Your task to perform on an android device: turn on wifi Image 0: 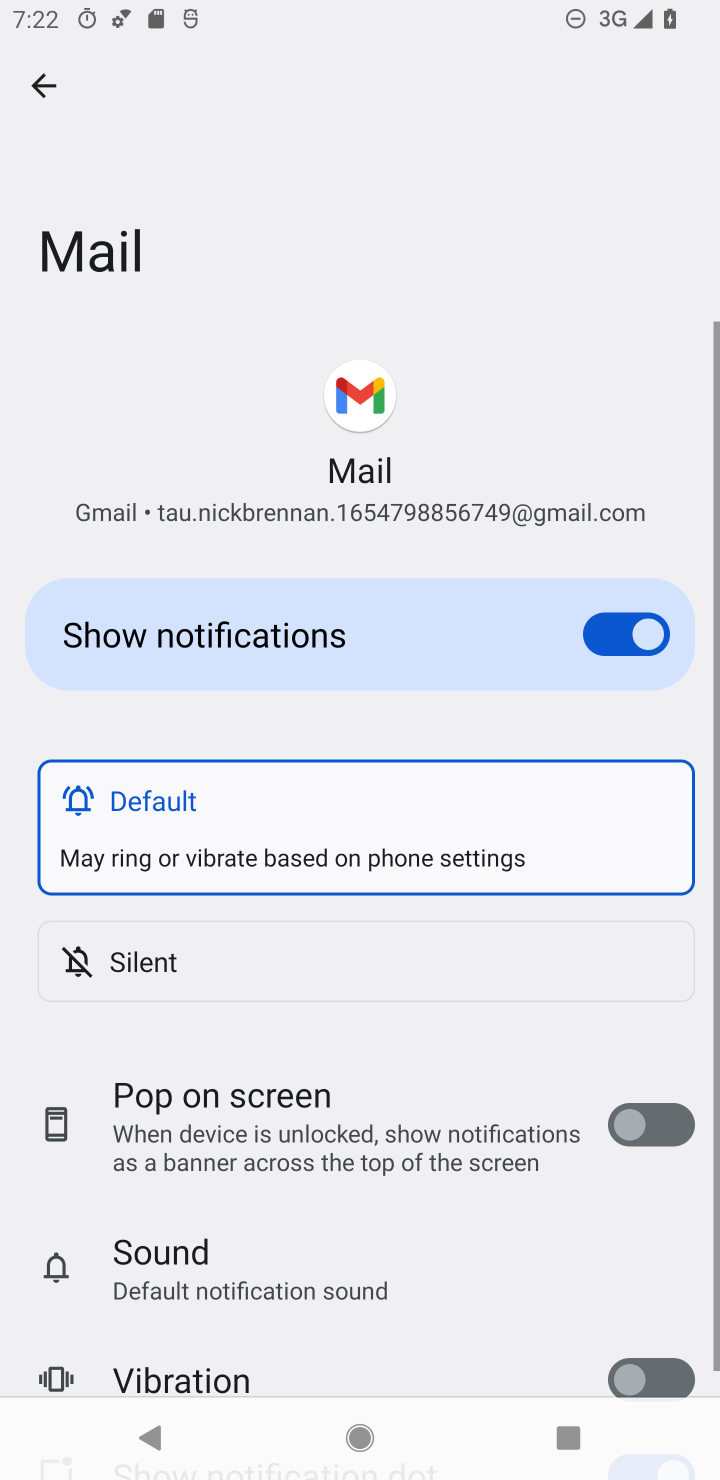
Step 0: click (568, 350)
Your task to perform on an android device: turn on wifi Image 1: 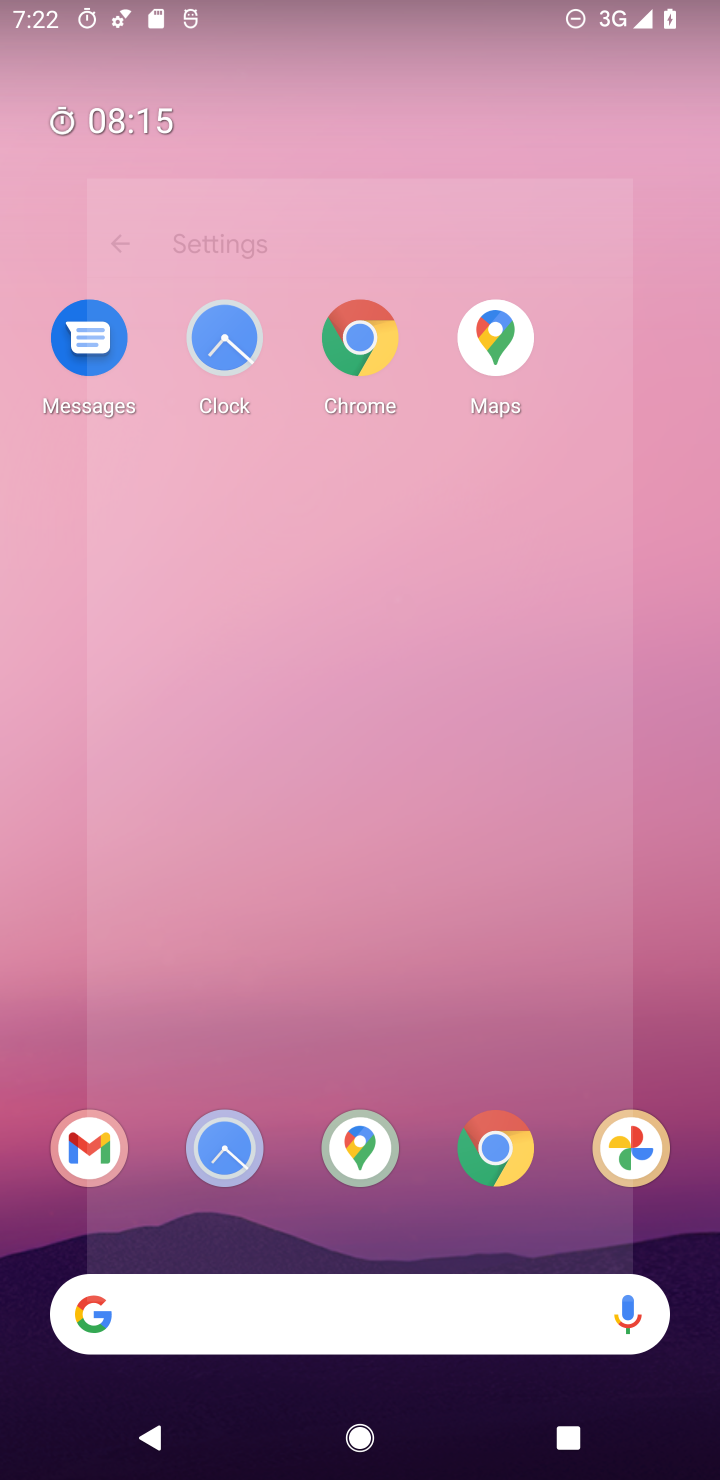
Step 1: press home button
Your task to perform on an android device: turn on wifi Image 2: 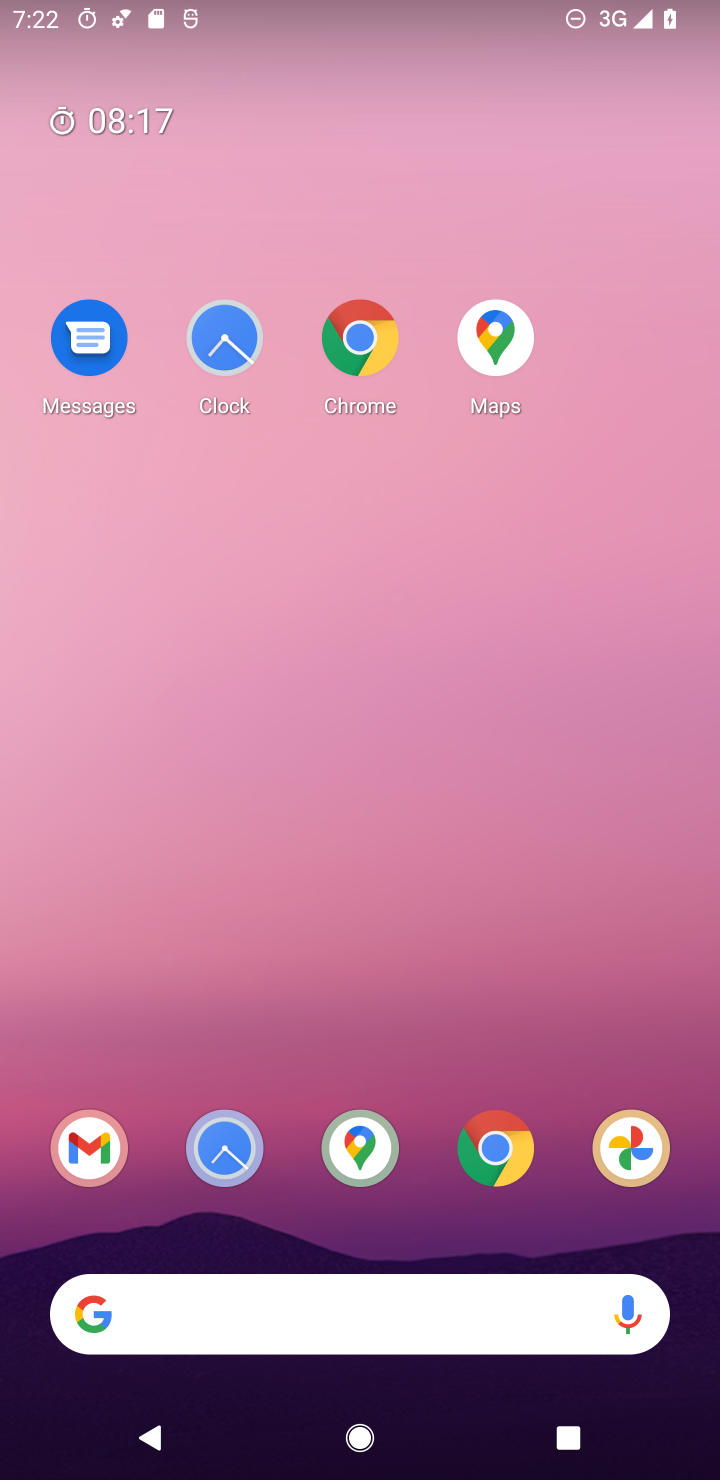
Step 2: press home button
Your task to perform on an android device: turn on wifi Image 3: 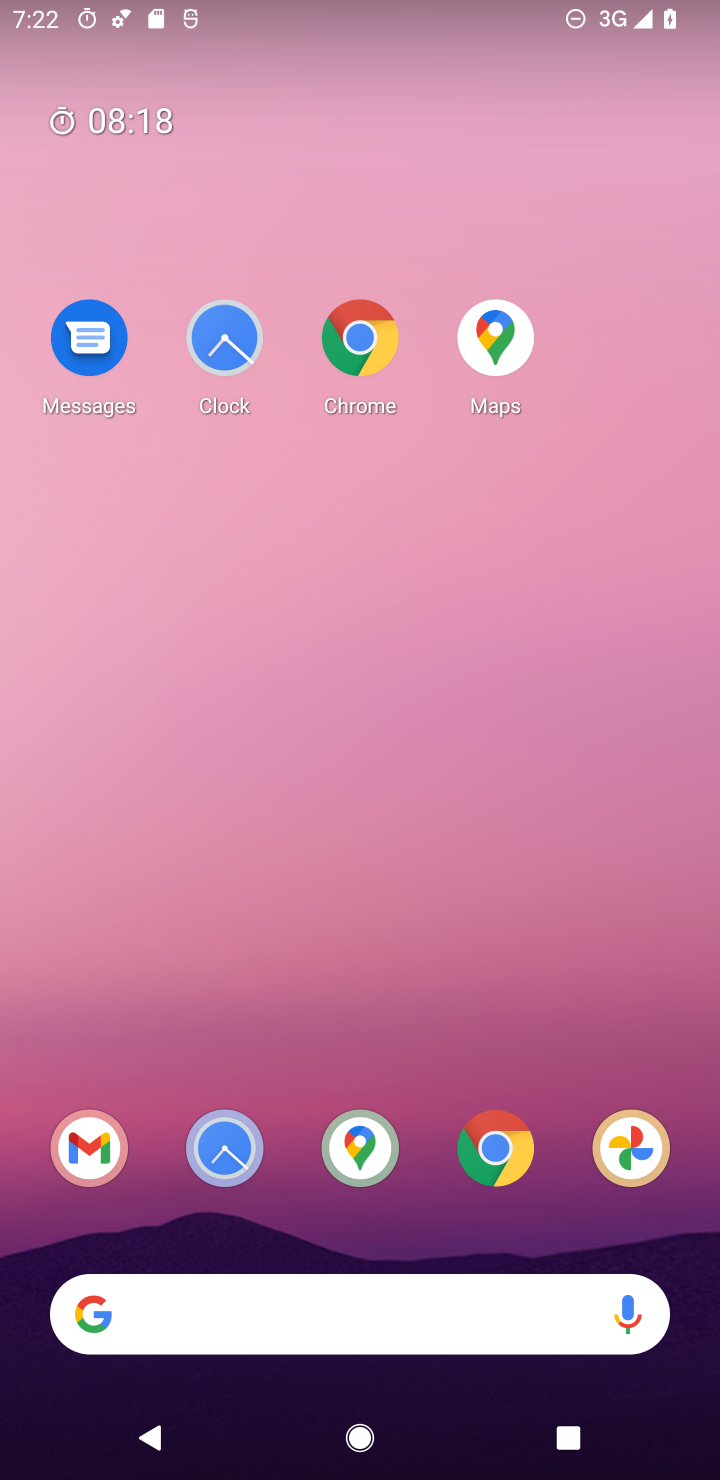
Step 3: drag from (445, 909) to (457, 308)
Your task to perform on an android device: turn on wifi Image 4: 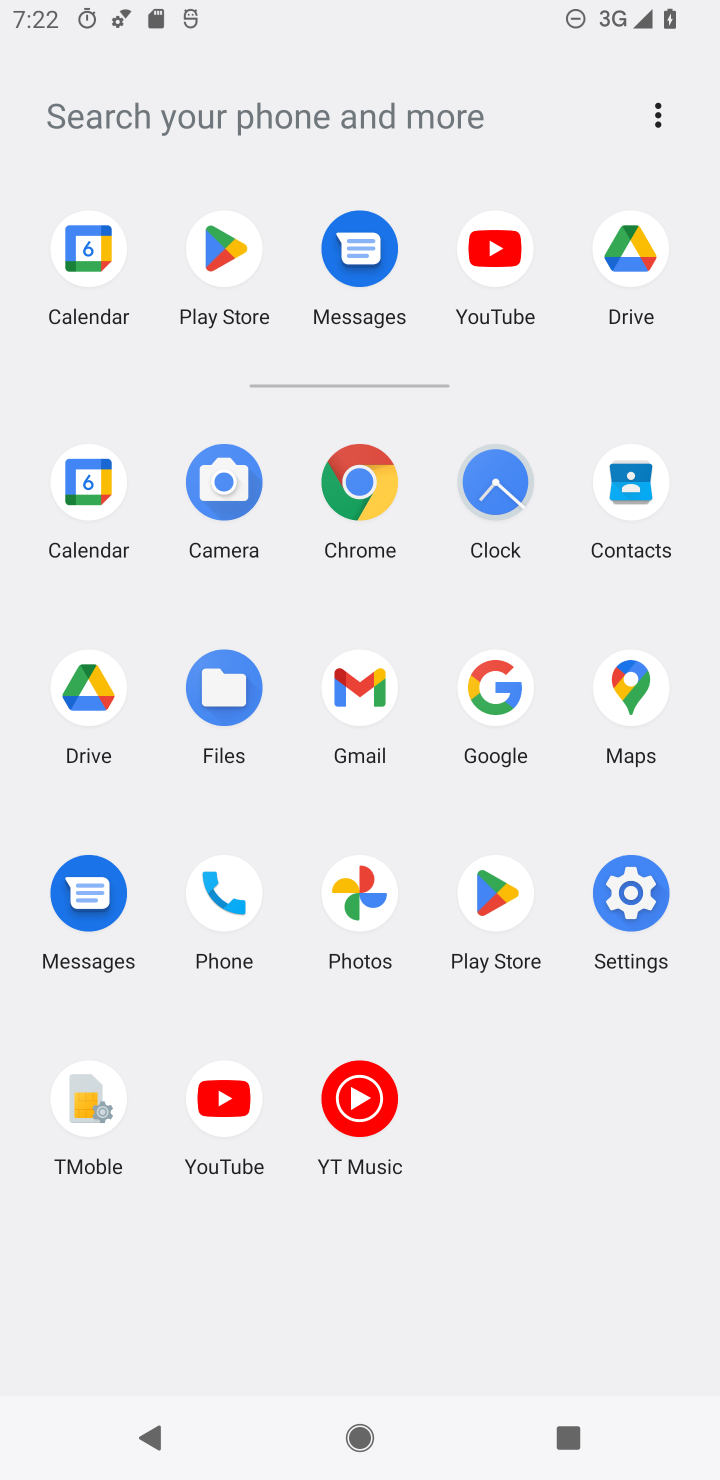
Step 4: click (606, 884)
Your task to perform on an android device: turn on wifi Image 5: 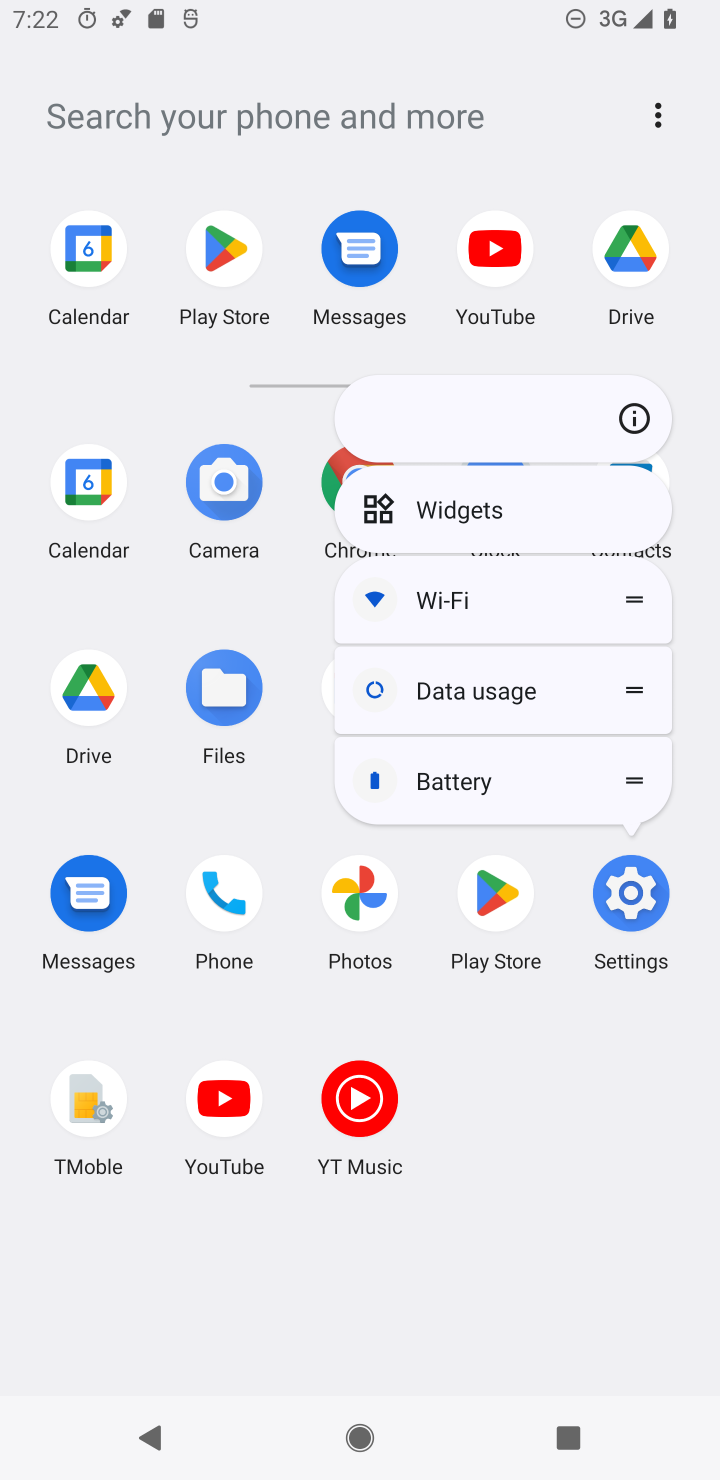
Step 5: click (614, 397)
Your task to perform on an android device: turn on wifi Image 6: 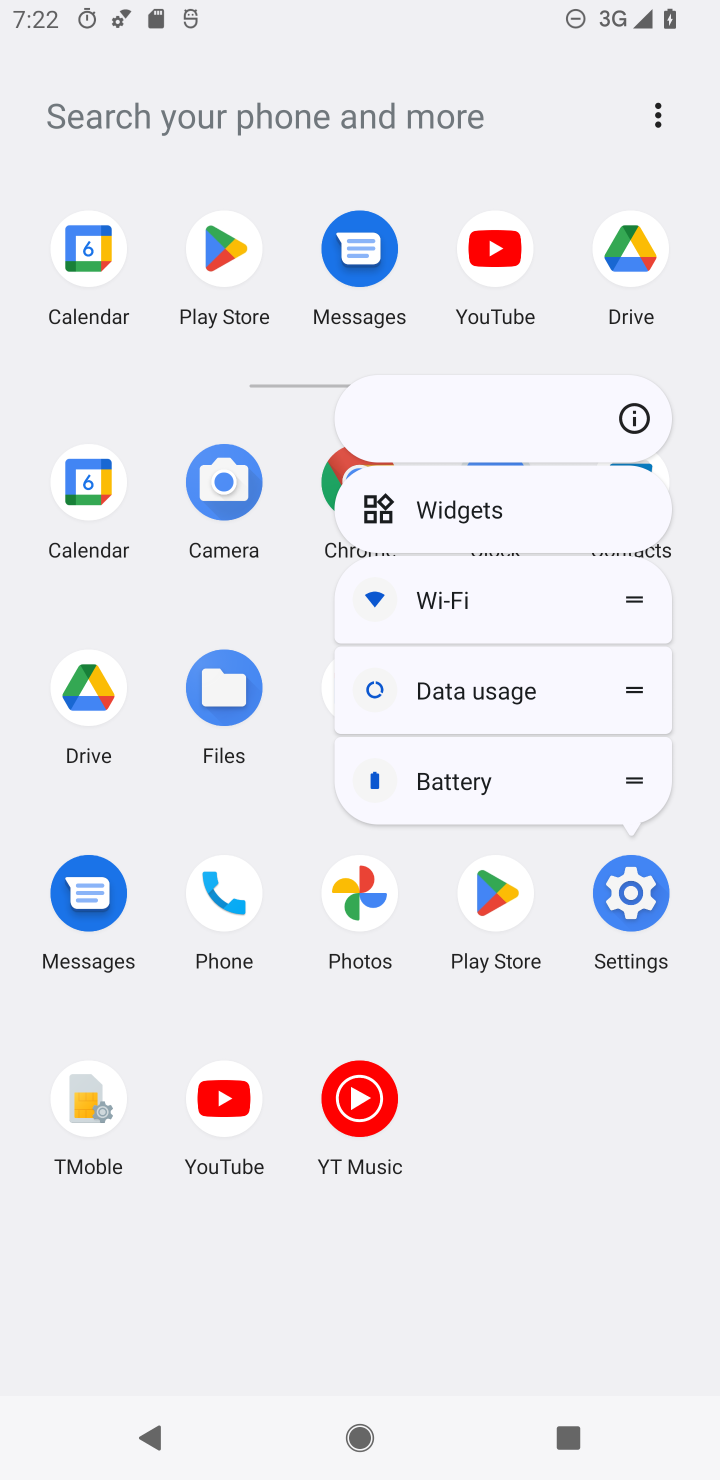
Step 6: click (630, 405)
Your task to perform on an android device: turn on wifi Image 7: 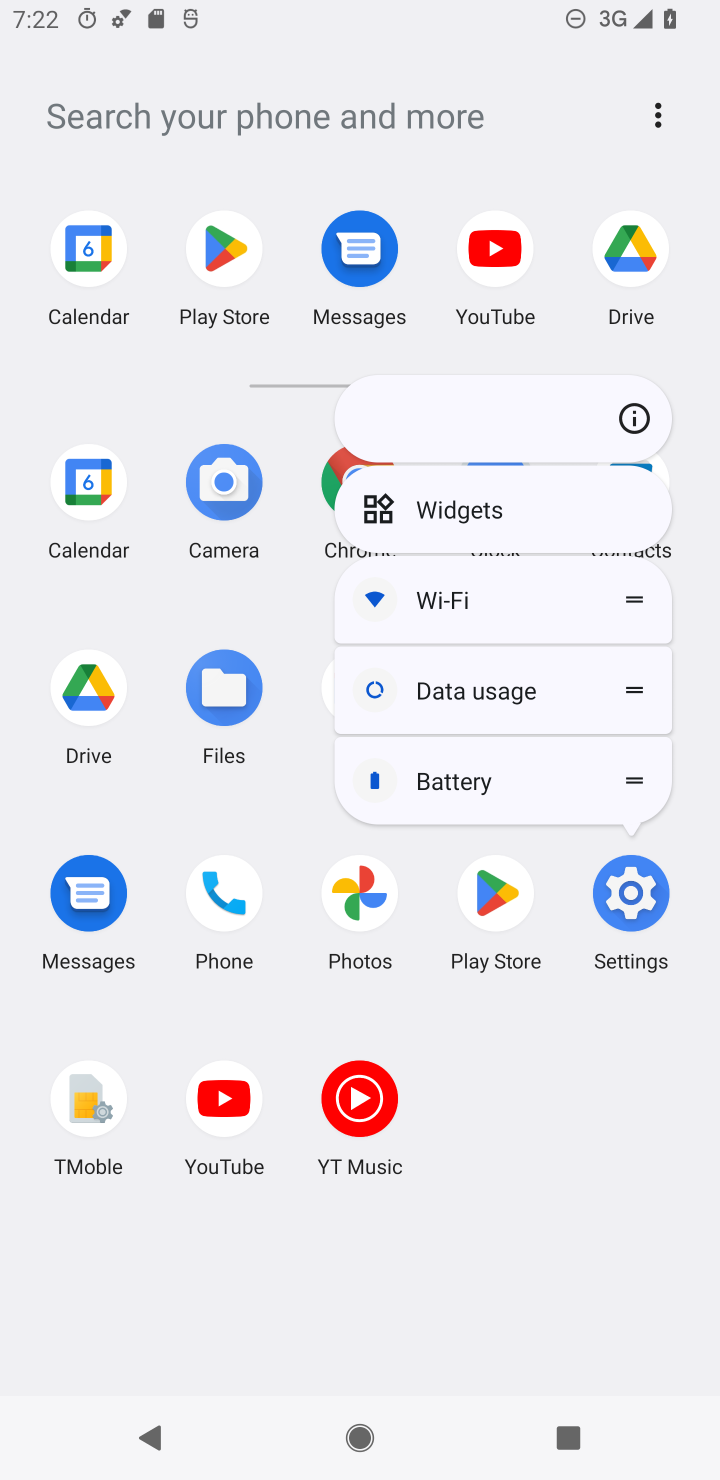
Step 7: click (633, 416)
Your task to perform on an android device: turn on wifi Image 8: 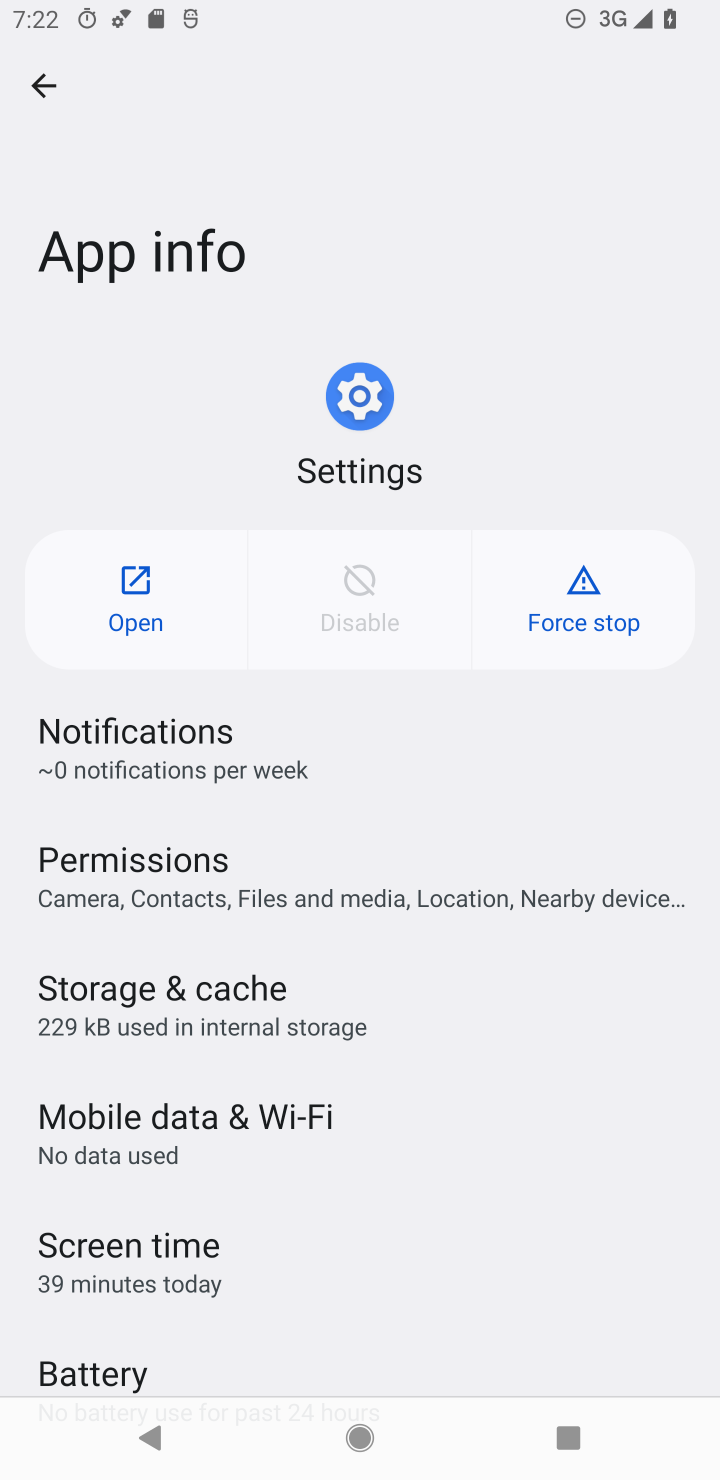
Step 8: click (142, 578)
Your task to perform on an android device: turn on wifi Image 9: 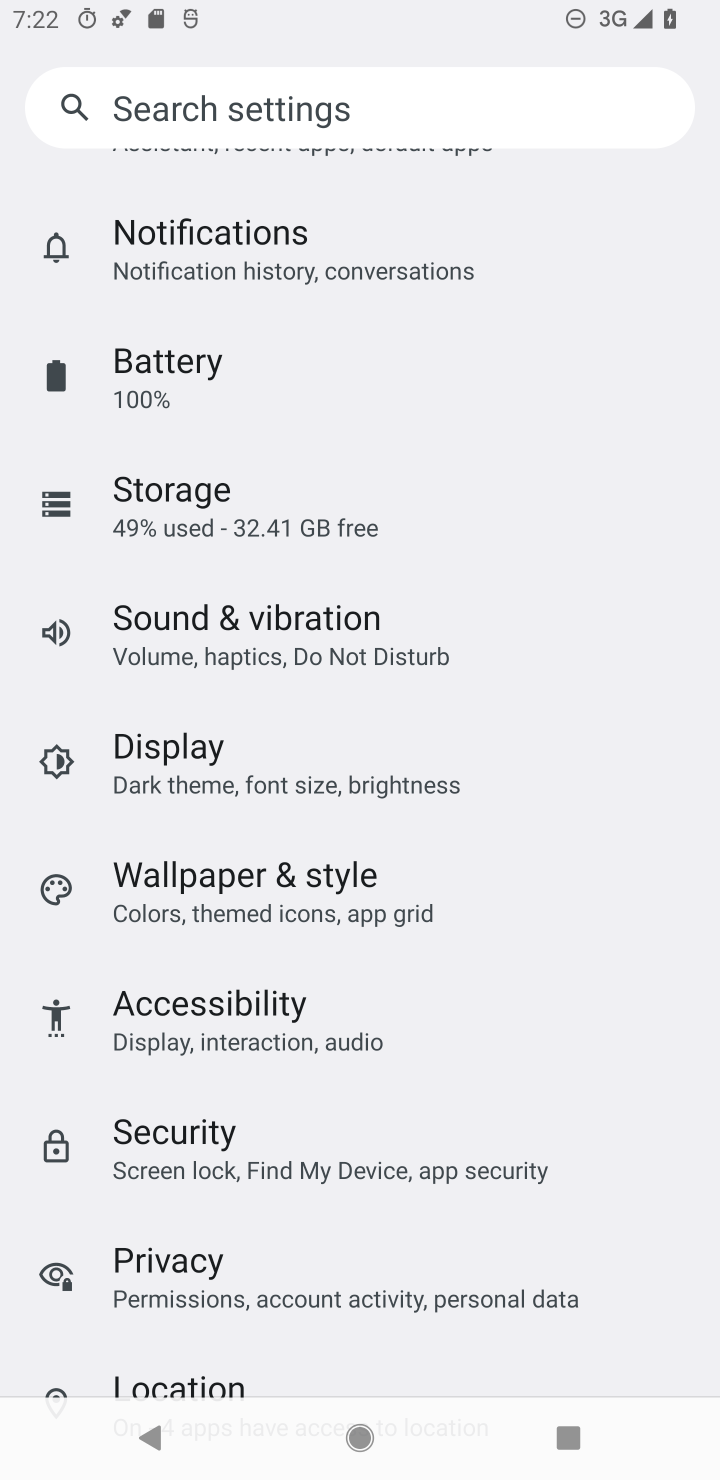
Step 9: drag from (270, 882) to (233, 1462)
Your task to perform on an android device: turn on wifi Image 10: 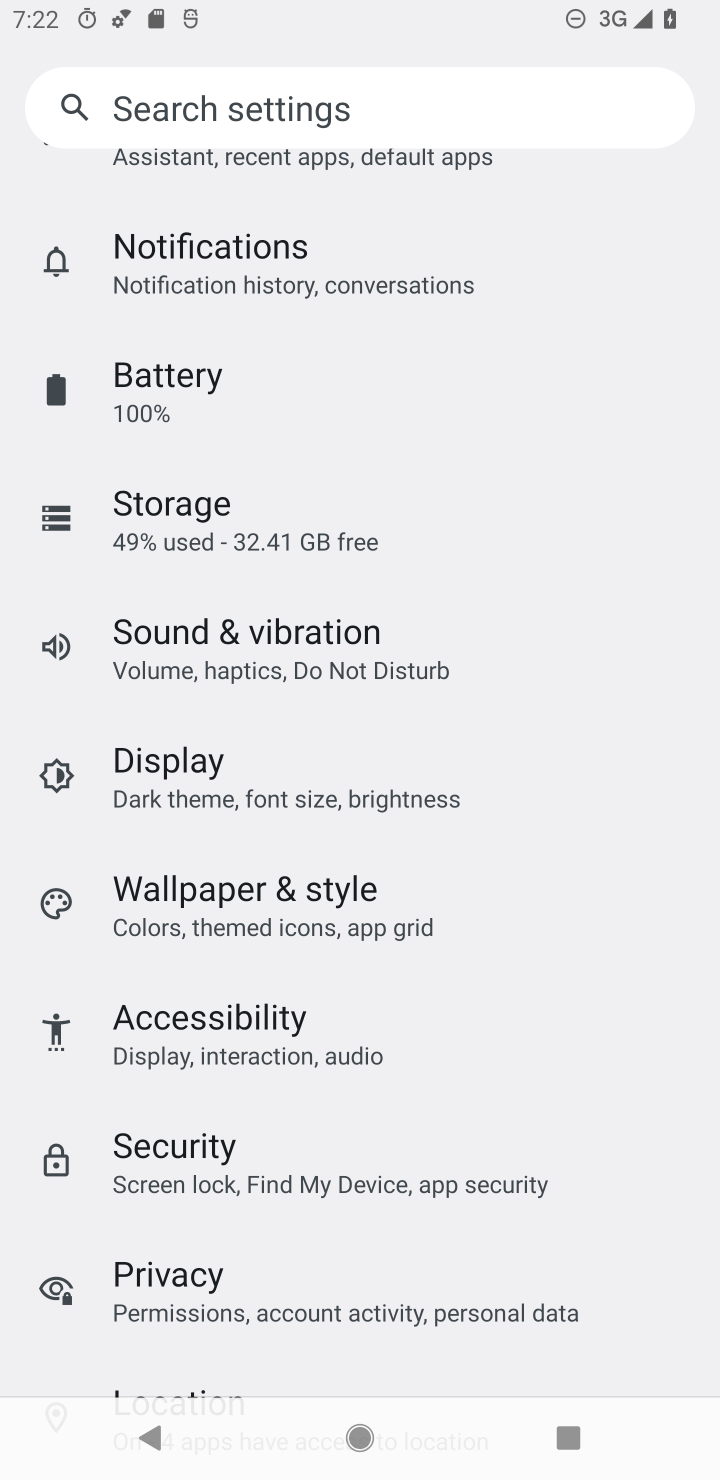
Step 10: drag from (293, 351) to (556, 1252)
Your task to perform on an android device: turn on wifi Image 11: 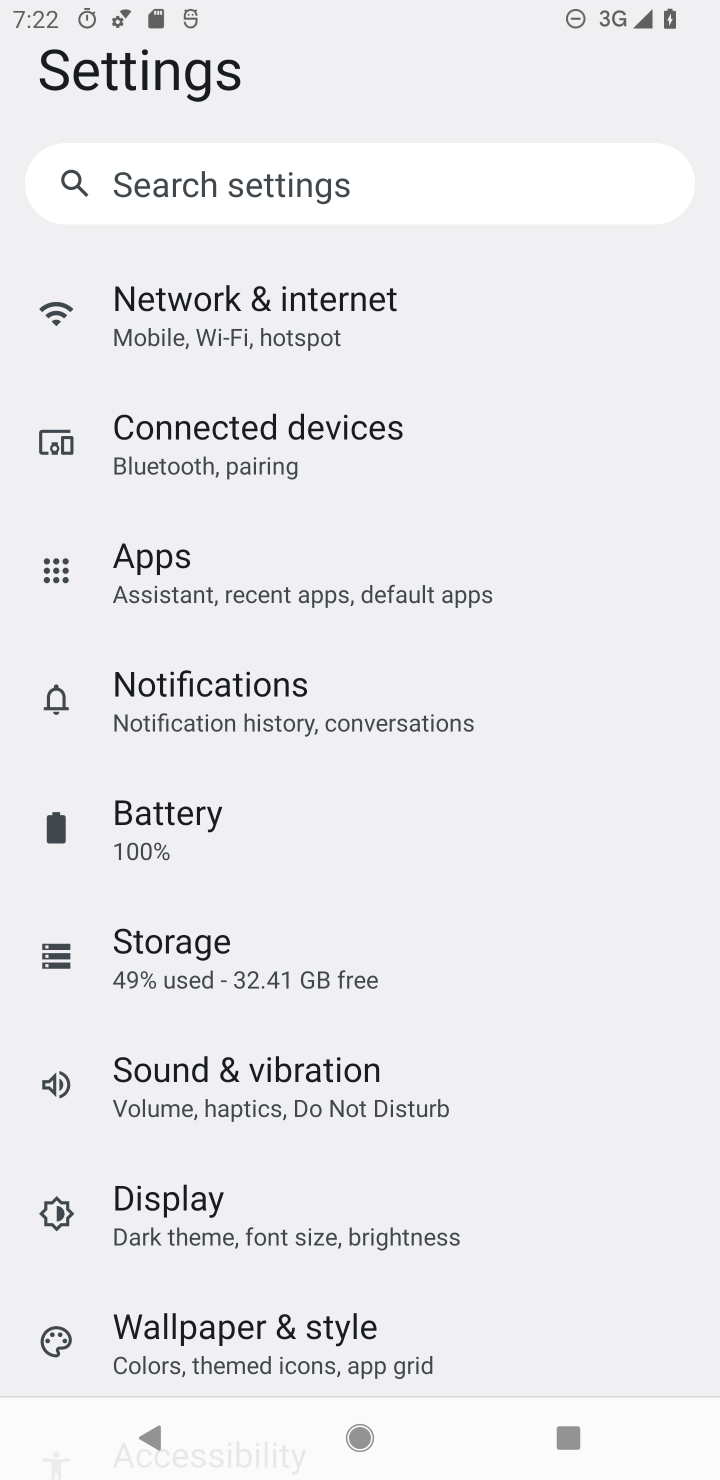
Step 11: drag from (243, 370) to (352, 1427)
Your task to perform on an android device: turn on wifi Image 12: 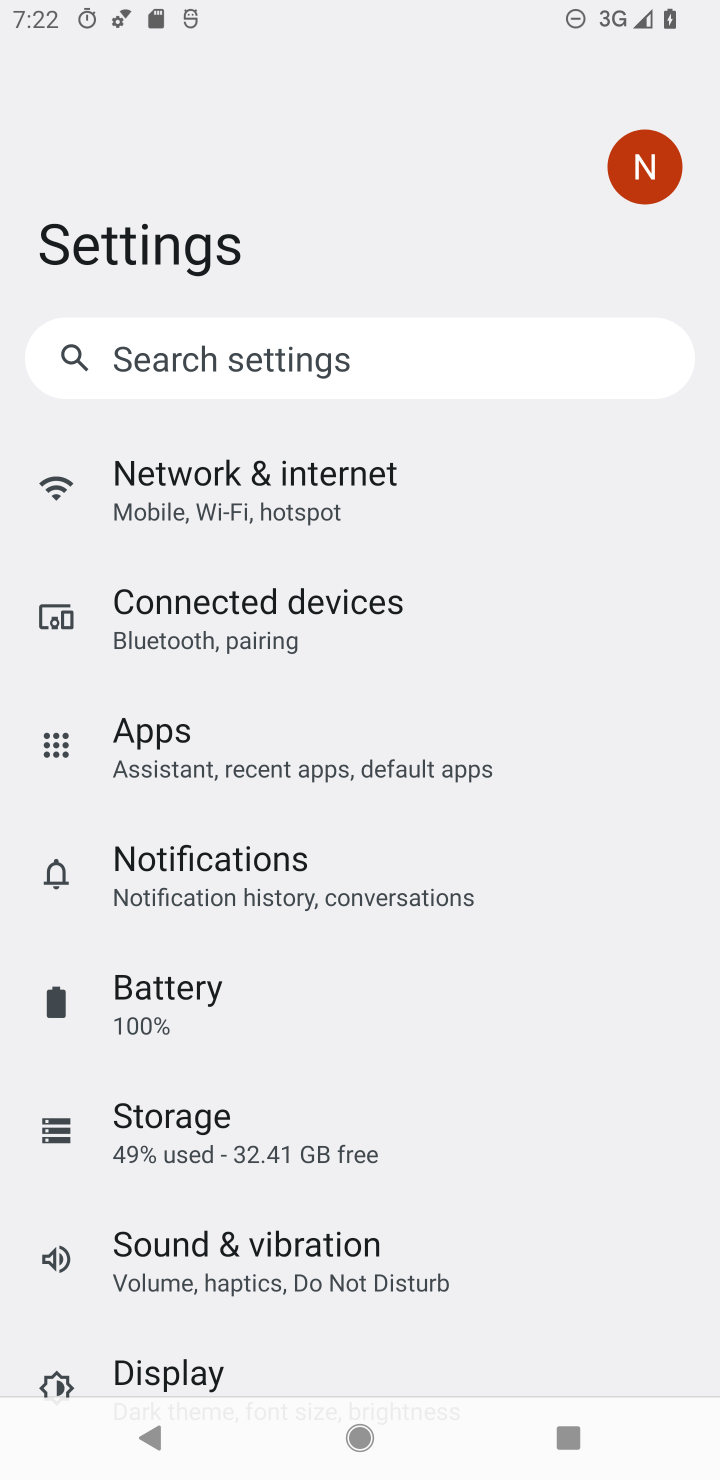
Step 12: click (284, 473)
Your task to perform on an android device: turn on wifi Image 13: 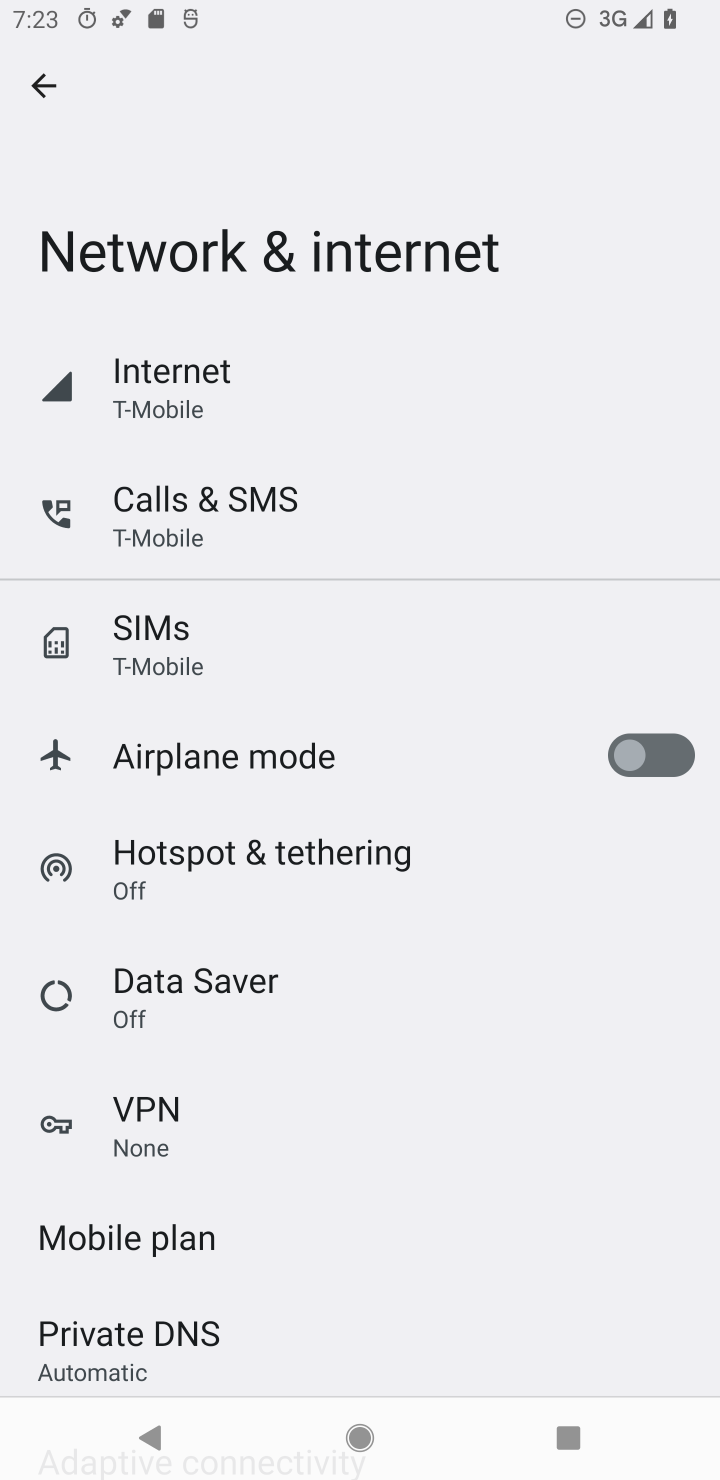
Step 13: click (189, 402)
Your task to perform on an android device: turn on wifi Image 14: 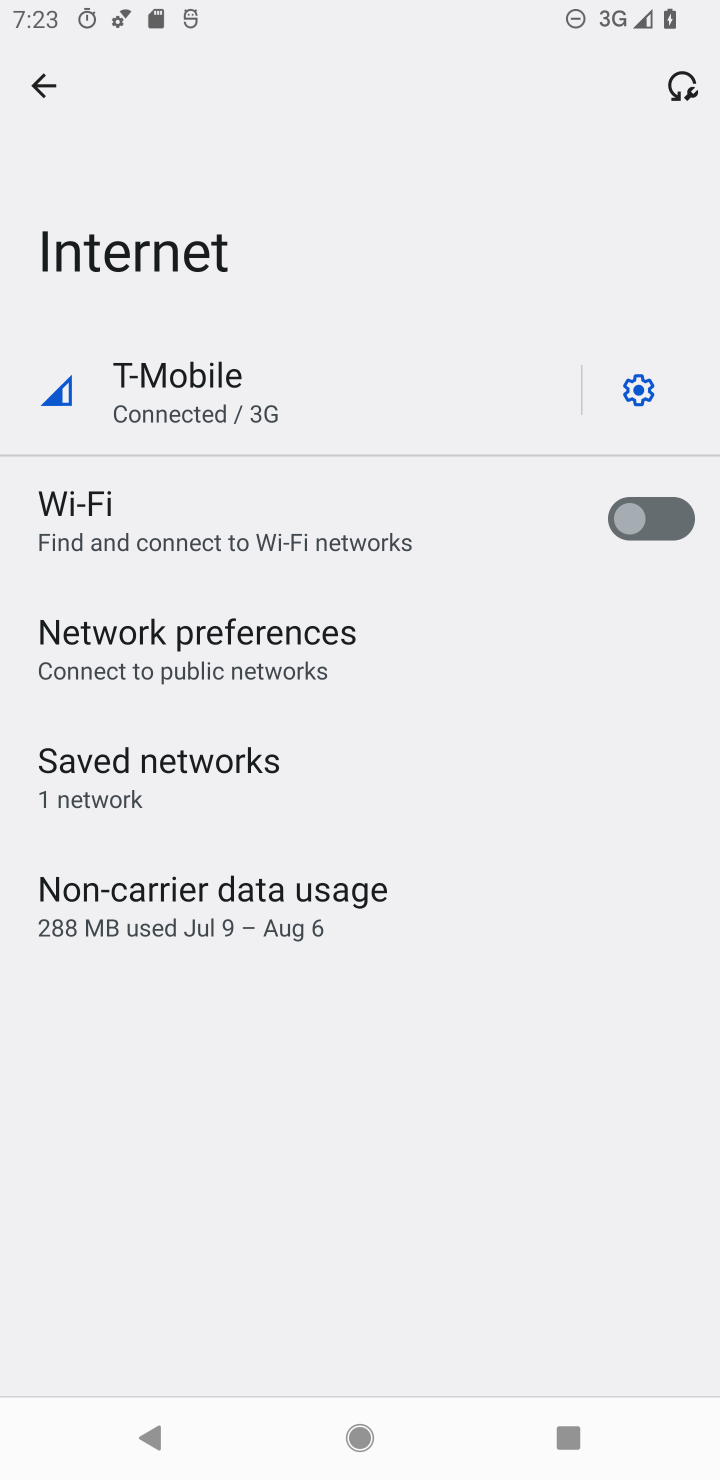
Step 14: click (603, 492)
Your task to perform on an android device: turn on wifi Image 15: 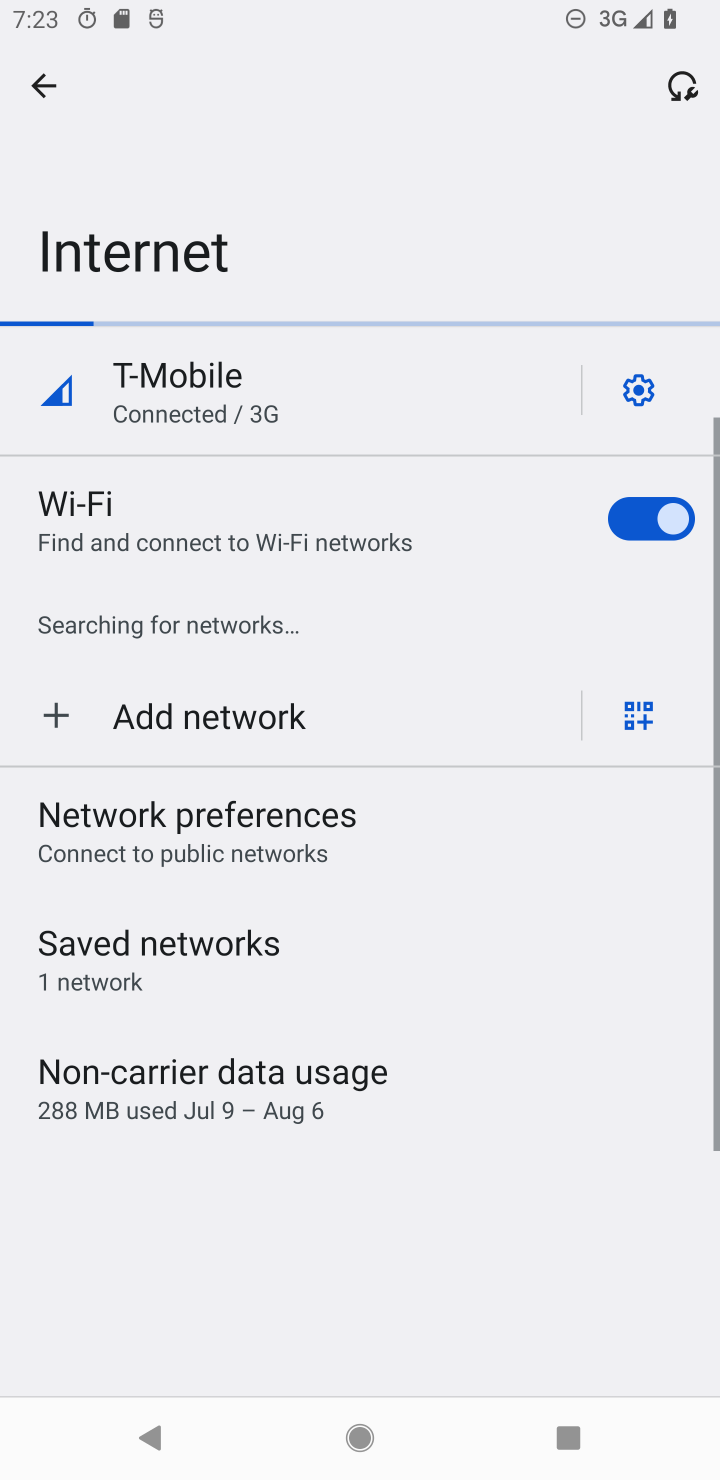
Step 15: task complete